Your task to perform on an android device: set the stopwatch Image 0: 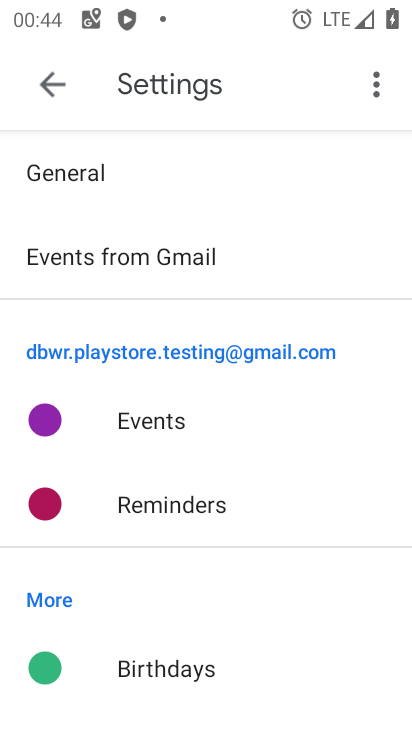
Step 0: press home button
Your task to perform on an android device: set the stopwatch Image 1: 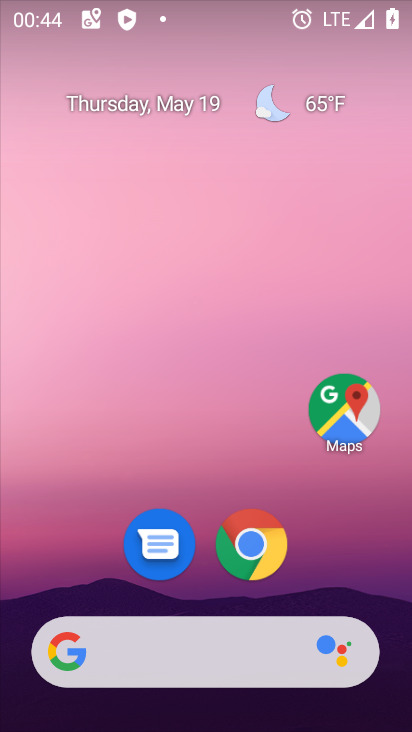
Step 1: drag from (363, 580) to (337, 149)
Your task to perform on an android device: set the stopwatch Image 2: 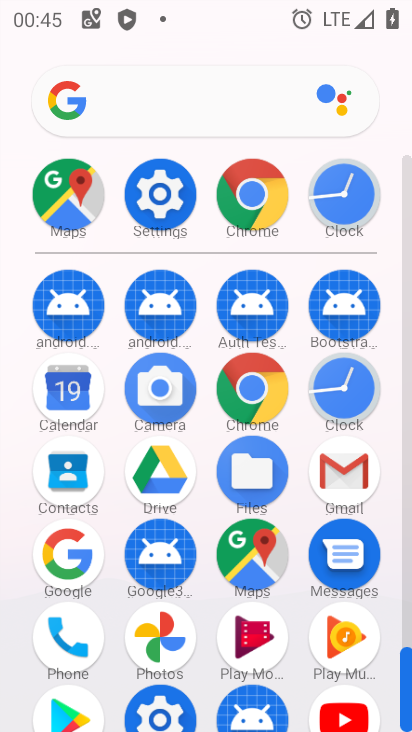
Step 2: click (337, 398)
Your task to perform on an android device: set the stopwatch Image 3: 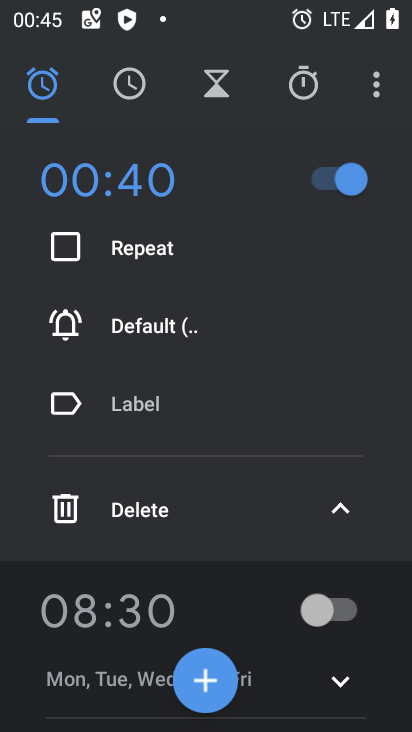
Step 3: click (305, 101)
Your task to perform on an android device: set the stopwatch Image 4: 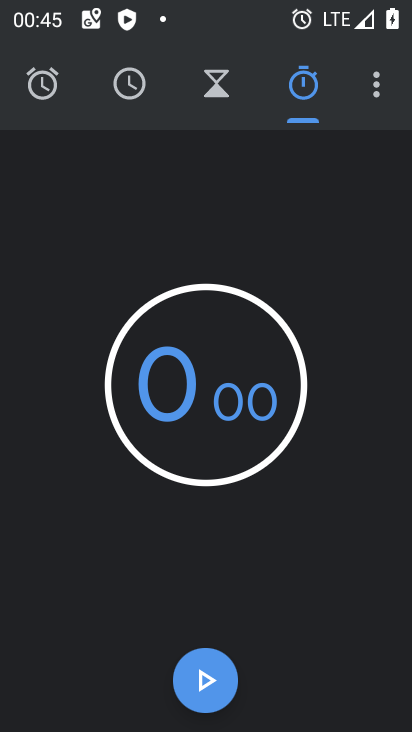
Step 4: click (203, 685)
Your task to perform on an android device: set the stopwatch Image 5: 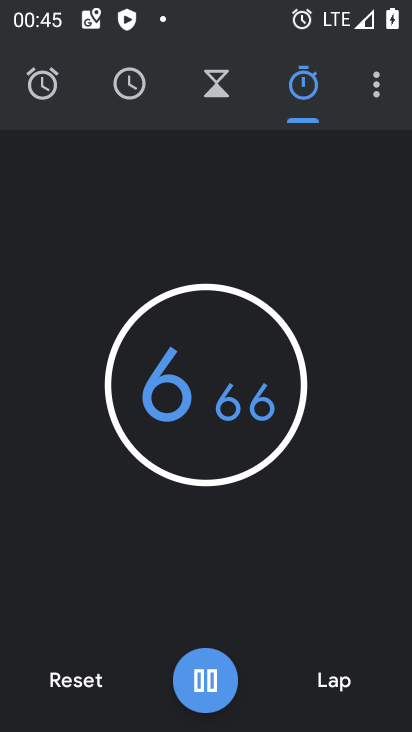
Step 5: task complete